Your task to perform on an android device: Is it going to rain this weekend? Image 0: 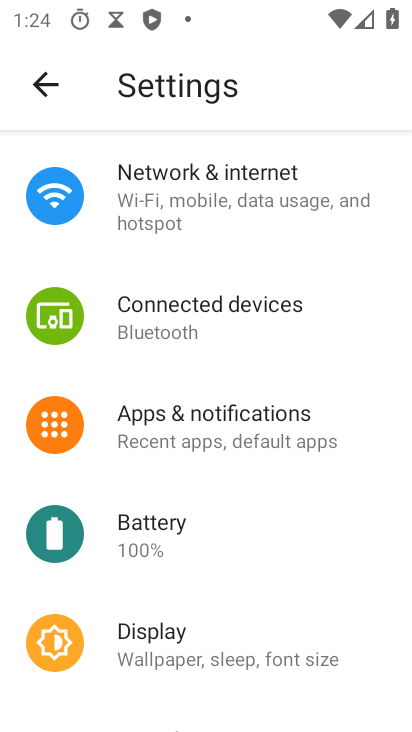
Step 0: press home button
Your task to perform on an android device: Is it going to rain this weekend? Image 1: 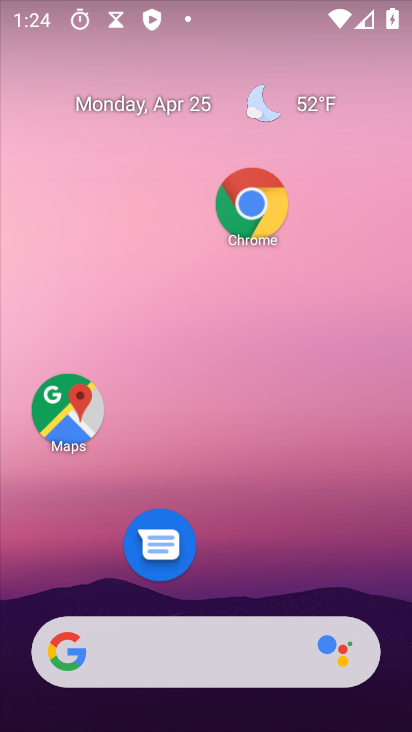
Step 1: click (187, 663)
Your task to perform on an android device: Is it going to rain this weekend? Image 2: 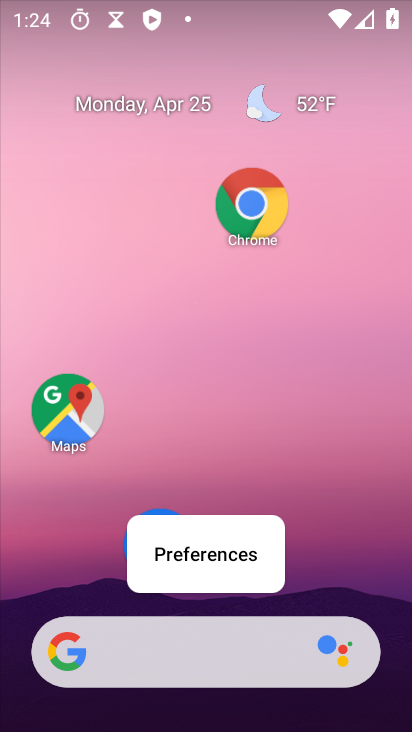
Step 2: click (347, 459)
Your task to perform on an android device: Is it going to rain this weekend? Image 3: 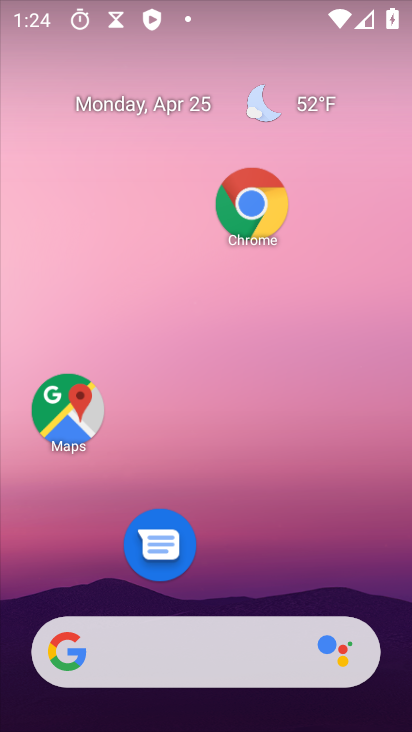
Step 3: drag from (232, 693) to (305, 334)
Your task to perform on an android device: Is it going to rain this weekend? Image 4: 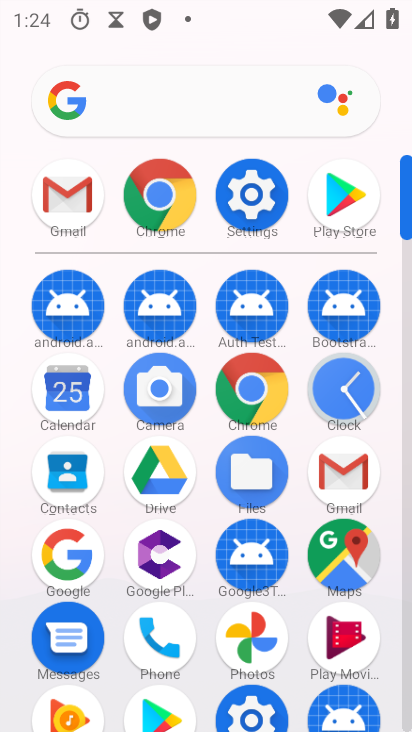
Step 4: click (215, 104)
Your task to perform on an android device: Is it going to rain this weekend? Image 5: 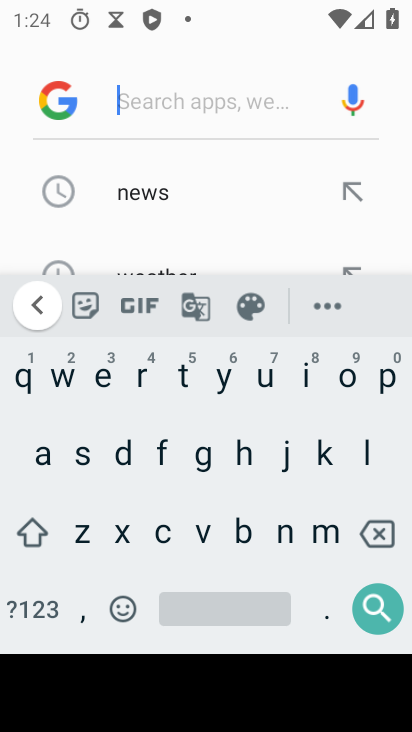
Step 5: click (65, 374)
Your task to perform on an android device: Is it going to rain this weekend? Image 6: 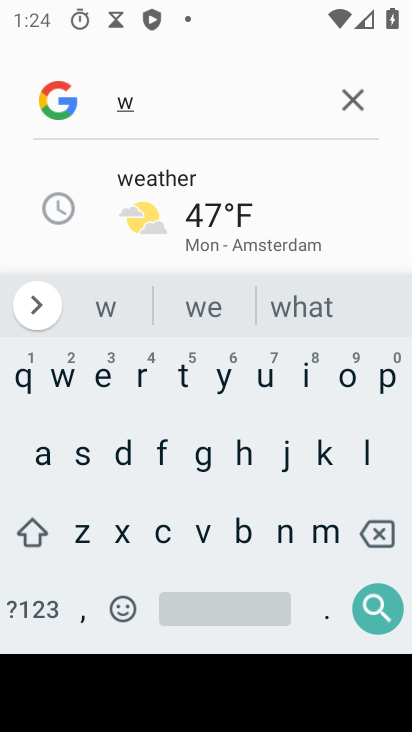
Step 6: click (171, 179)
Your task to perform on an android device: Is it going to rain this weekend? Image 7: 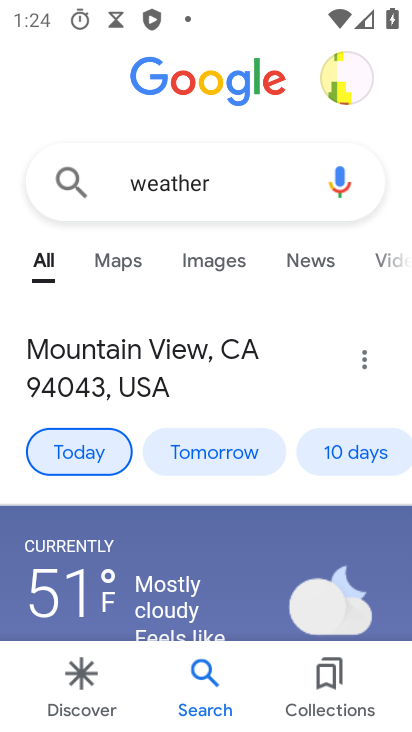
Step 7: task complete